Your task to perform on an android device: Open network settings Image 0: 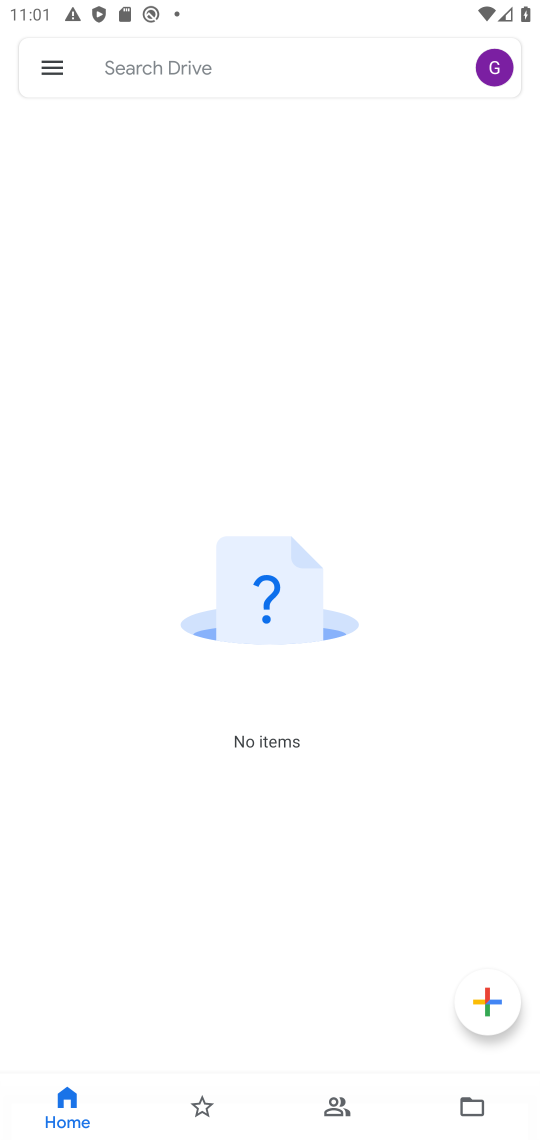
Step 0: press home button
Your task to perform on an android device: Open network settings Image 1: 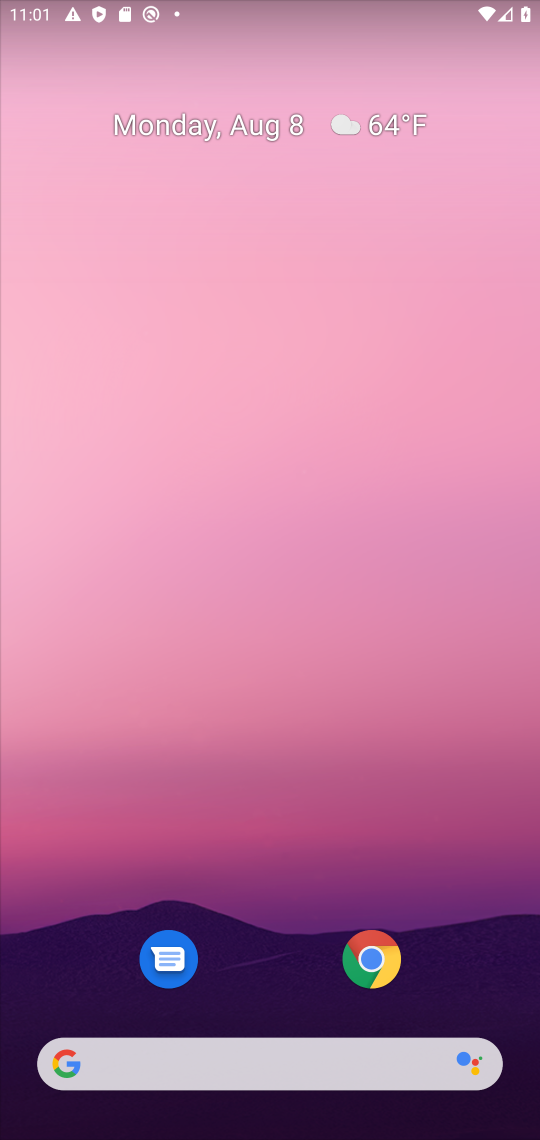
Step 1: drag from (468, 989) to (319, 299)
Your task to perform on an android device: Open network settings Image 2: 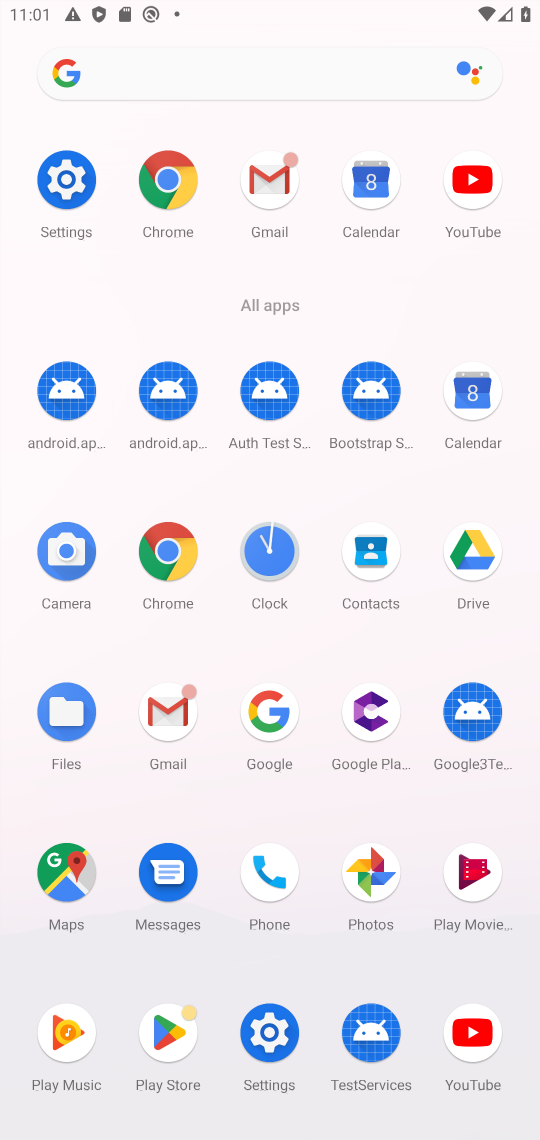
Step 2: click (80, 178)
Your task to perform on an android device: Open network settings Image 3: 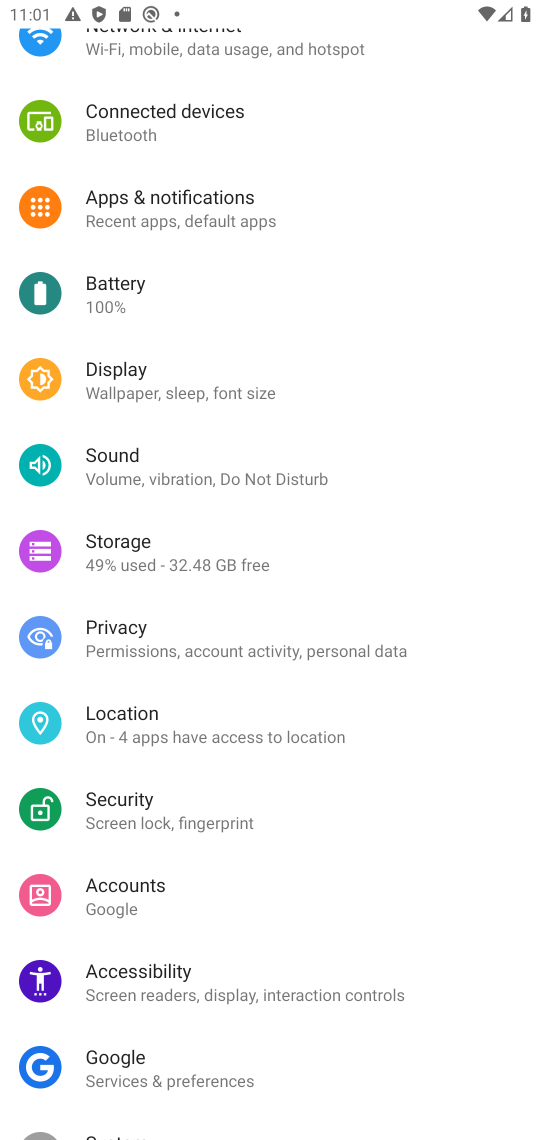
Step 3: drag from (194, 146) to (226, 942)
Your task to perform on an android device: Open network settings Image 4: 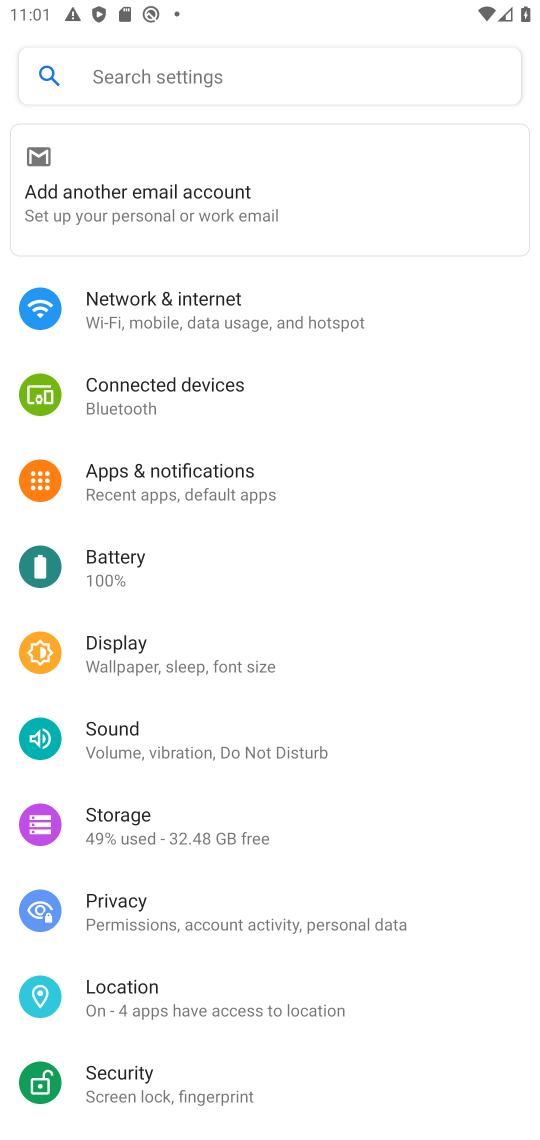
Step 4: click (231, 308)
Your task to perform on an android device: Open network settings Image 5: 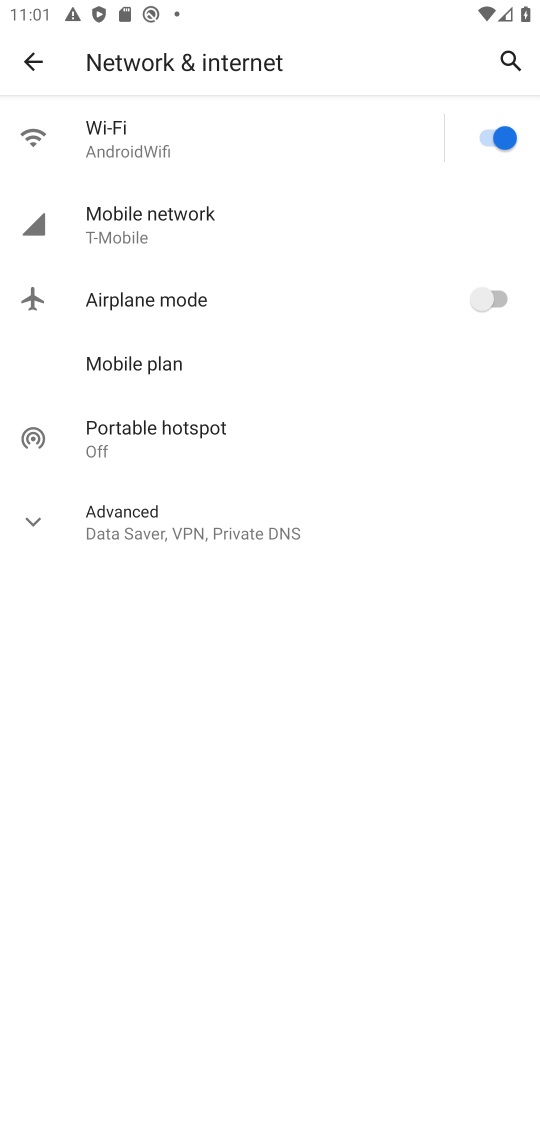
Step 5: task complete